Your task to perform on an android device: turn vacation reply on in the gmail app Image 0: 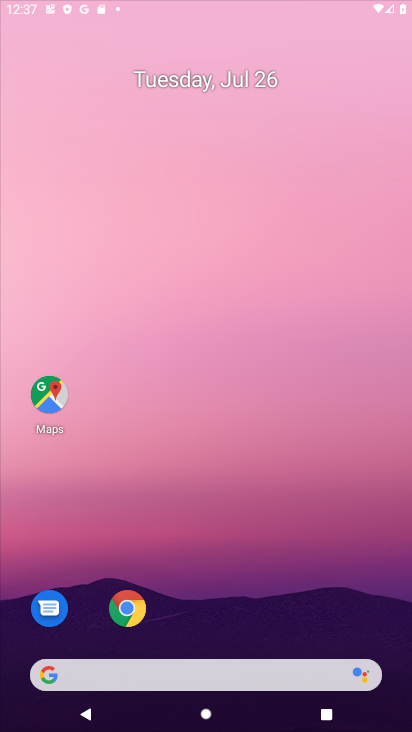
Step 0: drag from (179, 621) to (153, 43)
Your task to perform on an android device: turn vacation reply on in the gmail app Image 1: 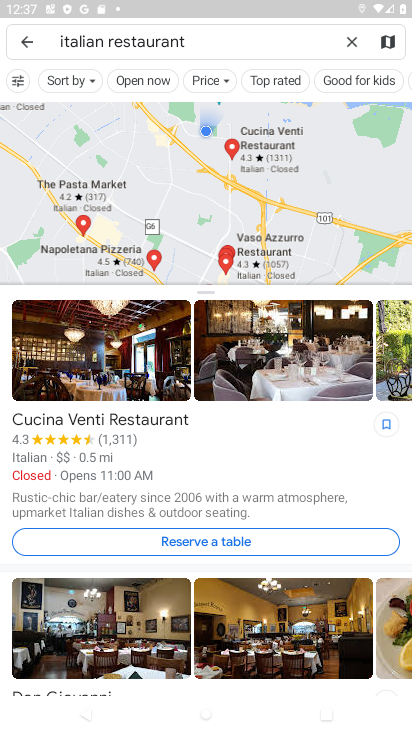
Step 1: press home button
Your task to perform on an android device: turn vacation reply on in the gmail app Image 2: 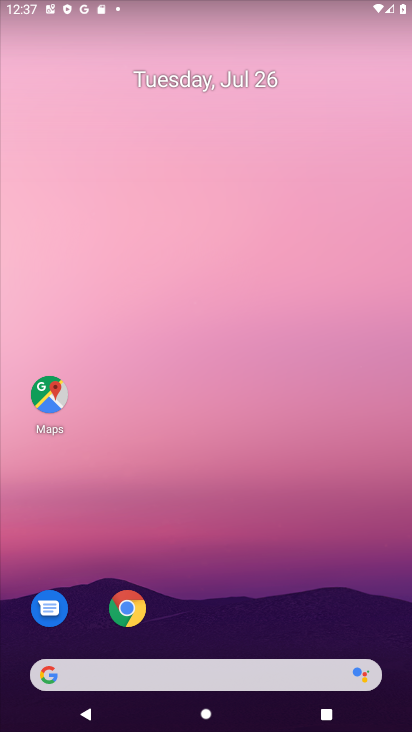
Step 2: drag from (200, 612) to (140, 118)
Your task to perform on an android device: turn vacation reply on in the gmail app Image 3: 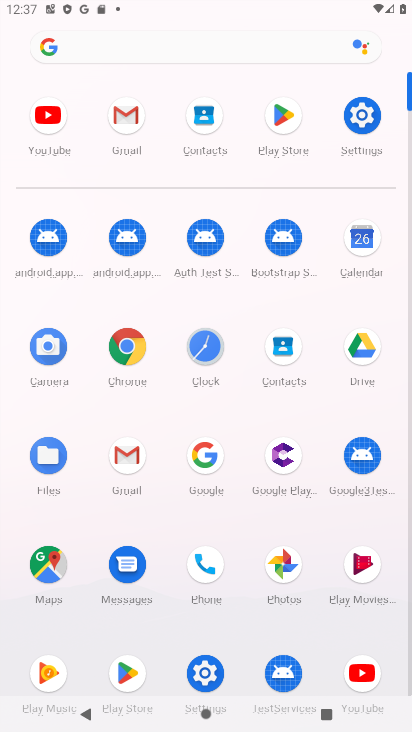
Step 3: click (133, 117)
Your task to perform on an android device: turn vacation reply on in the gmail app Image 4: 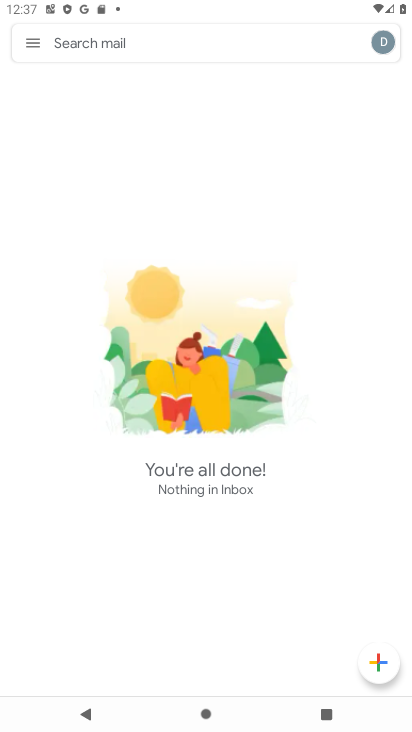
Step 4: click (41, 55)
Your task to perform on an android device: turn vacation reply on in the gmail app Image 5: 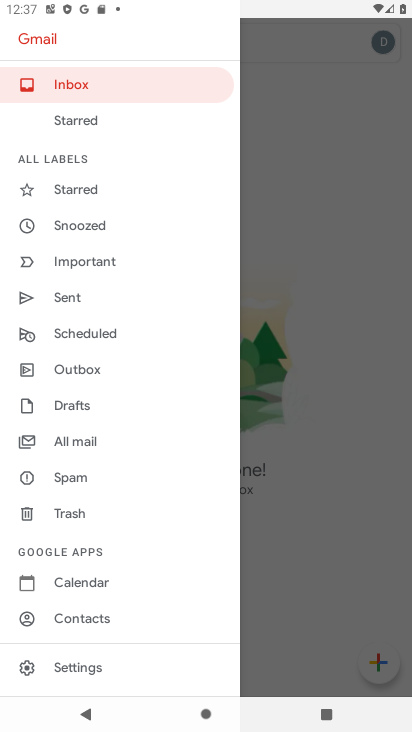
Step 5: click (63, 672)
Your task to perform on an android device: turn vacation reply on in the gmail app Image 6: 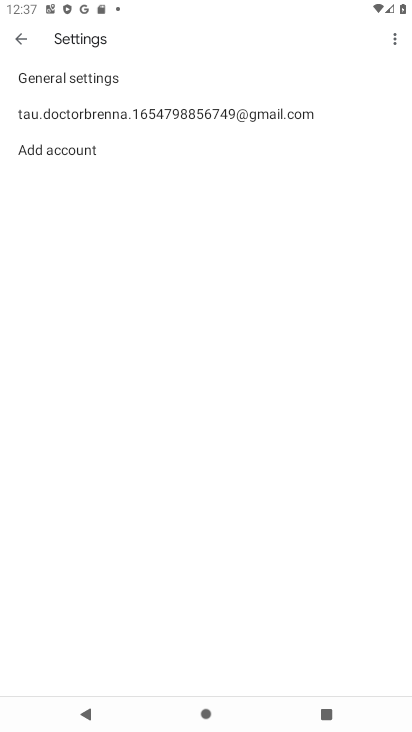
Step 6: click (272, 127)
Your task to perform on an android device: turn vacation reply on in the gmail app Image 7: 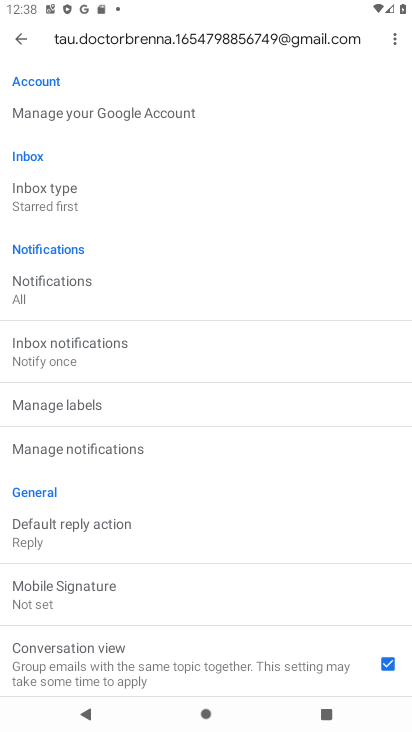
Step 7: drag from (143, 649) to (161, 184)
Your task to perform on an android device: turn vacation reply on in the gmail app Image 8: 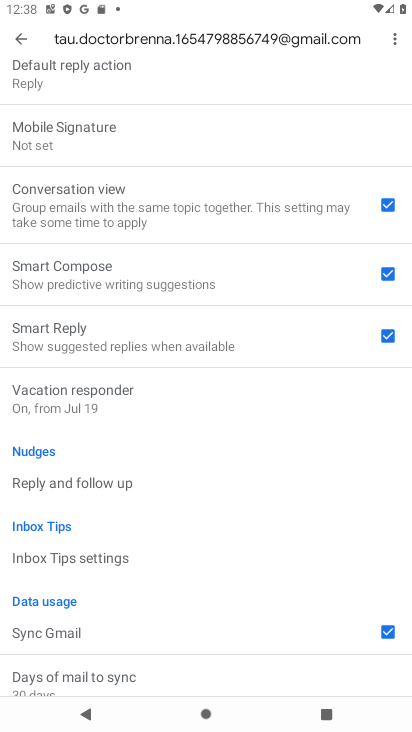
Step 8: drag from (131, 646) to (182, 2)
Your task to perform on an android device: turn vacation reply on in the gmail app Image 9: 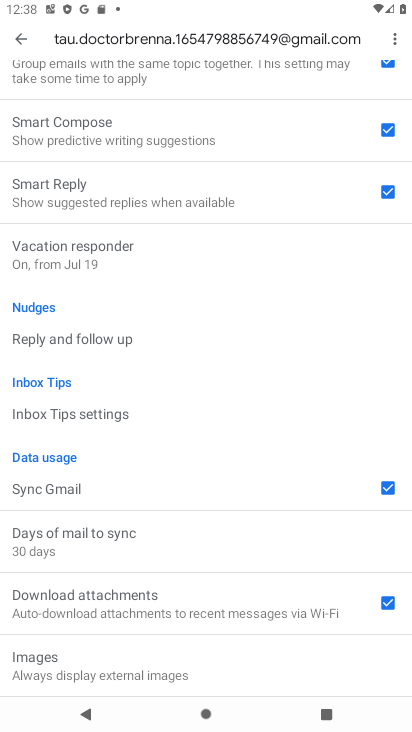
Step 9: drag from (184, 665) to (184, 252)
Your task to perform on an android device: turn vacation reply on in the gmail app Image 10: 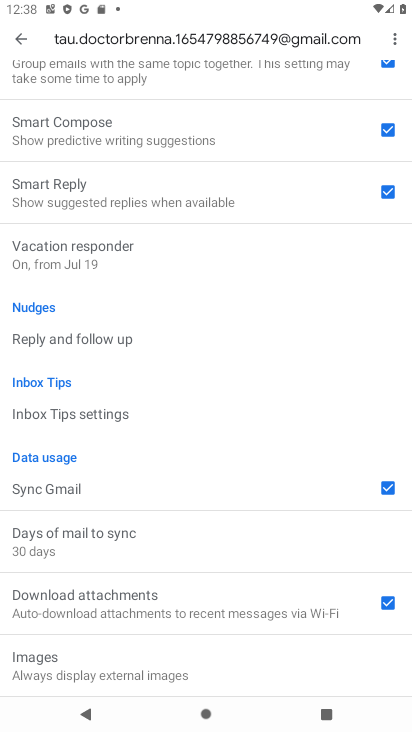
Step 10: click (263, 250)
Your task to perform on an android device: turn vacation reply on in the gmail app Image 11: 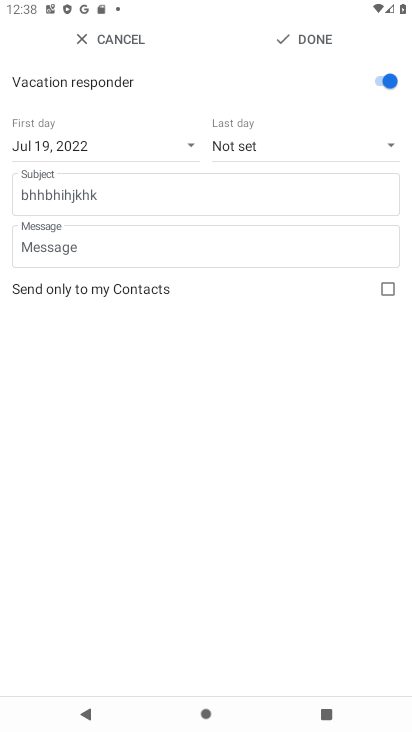
Step 11: click (329, 42)
Your task to perform on an android device: turn vacation reply on in the gmail app Image 12: 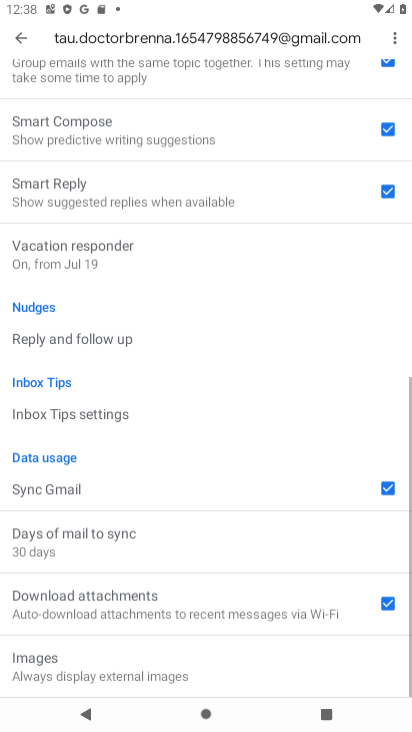
Step 12: task complete